Your task to perform on an android device: turn off location Image 0: 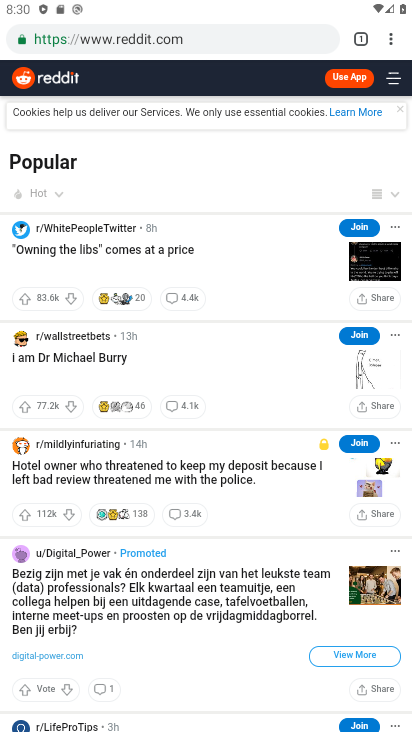
Step 0: press home button
Your task to perform on an android device: turn off location Image 1: 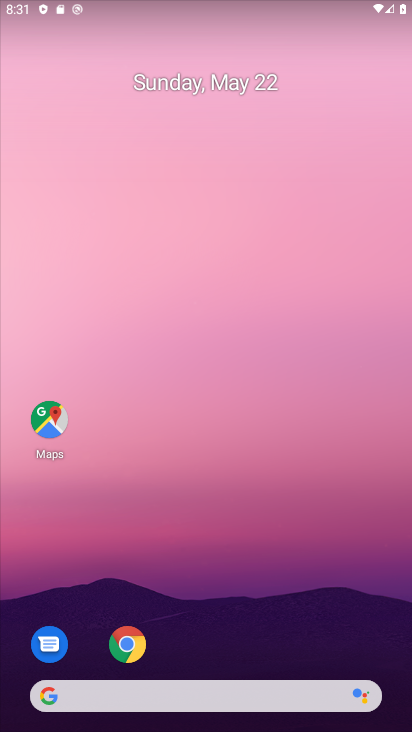
Step 1: drag from (192, 694) to (245, 167)
Your task to perform on an android device: turn off location Image 2: 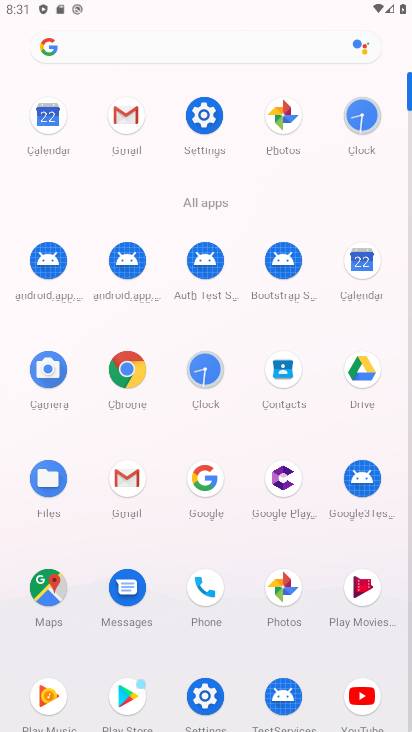
Step 2: click (208, 115)
Your task to perform on an android device: turn off location Image 3: 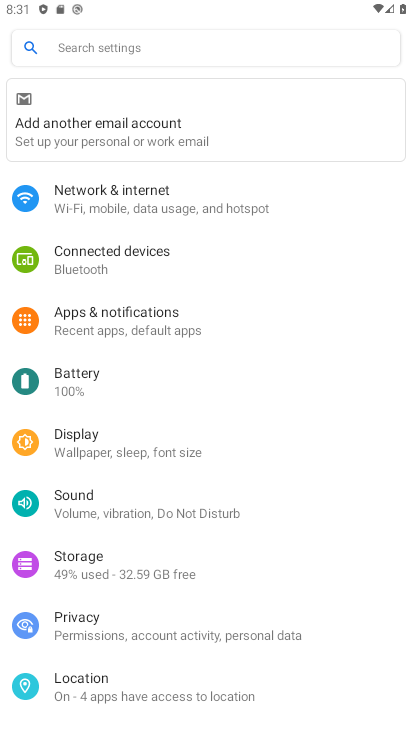
Step 3: click (100, 686)
Your task to perform on an android device: turn off location Image 4: 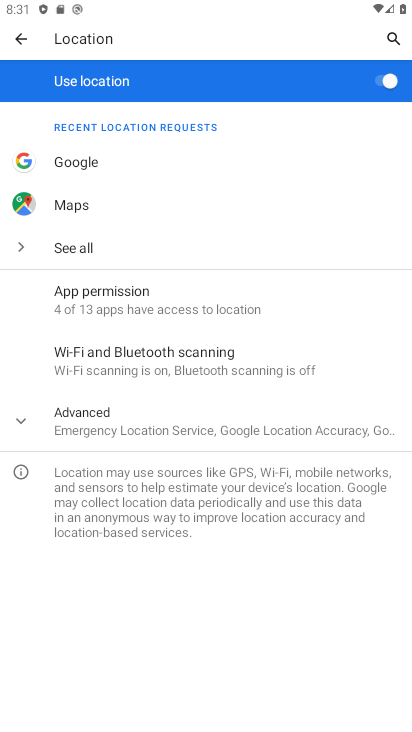
Step 4: click (395, 85)
Your task to perform on an android device: turn off location Image 5: 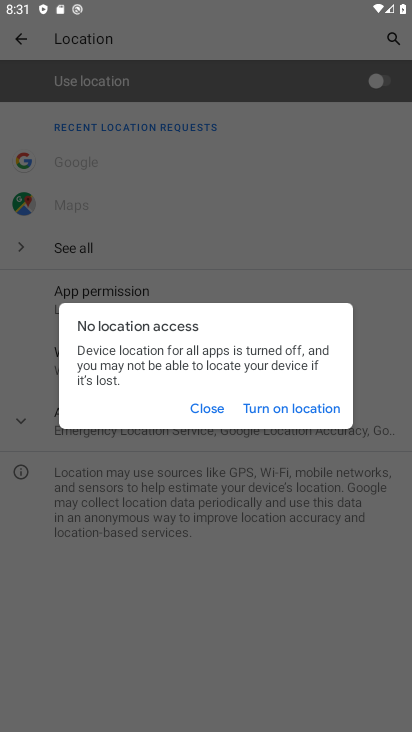
Step 5: click (213, 409)
Your task to perform on an android device: turn off location Image 6: 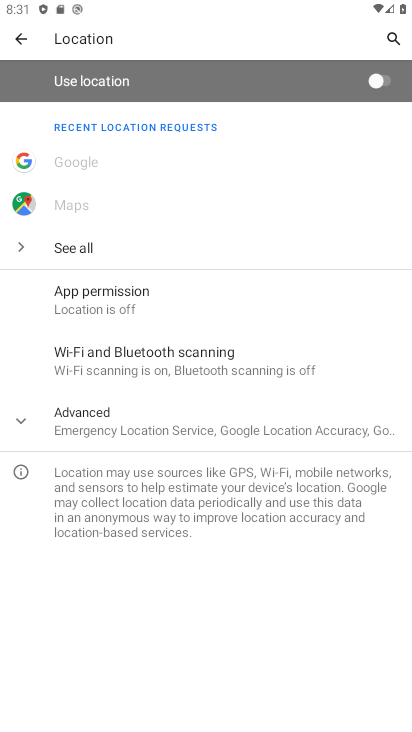
Step 6: task complete